Your task to perform on an android device: open sync settings in chrome Image 0: 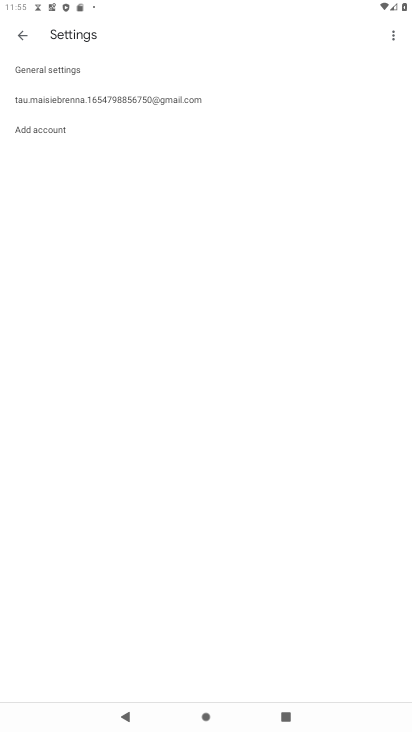
Step 0: press home button
Your task to perform on an android device: open sync settings in chrome Image 1: 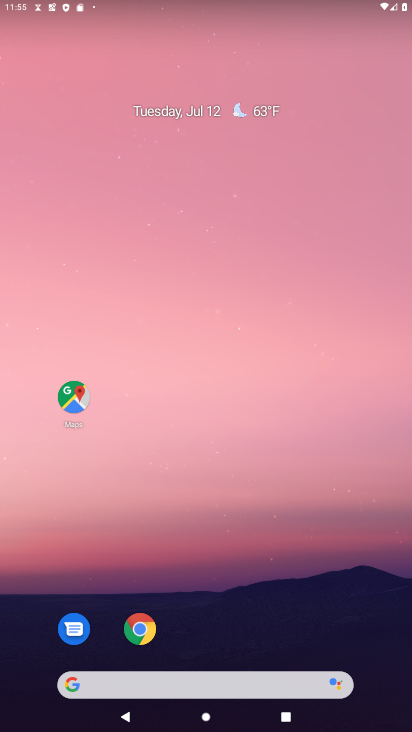
Step 1: drag from (308, 512) to (218, 10)
Your task to perform on an android device: open sync settings in chrome Image 2: 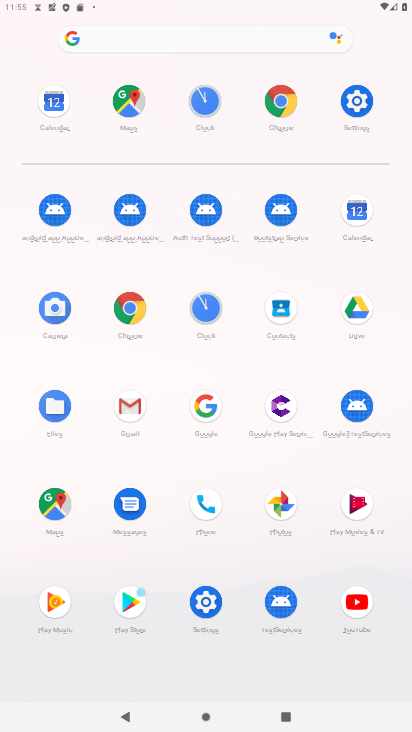
Step 2: click (280, 105)
Your task to perform on an android device: open sync settings in chrome Image 3: 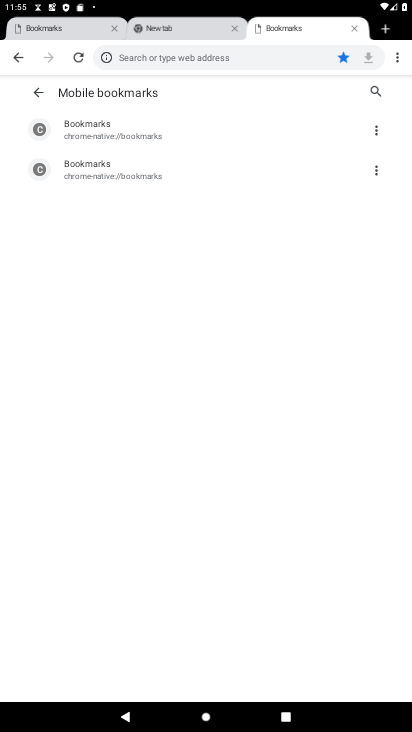
Step 3: click (396, 50)
Your task to perform on an android device: open sync settings in chrome Image 4: 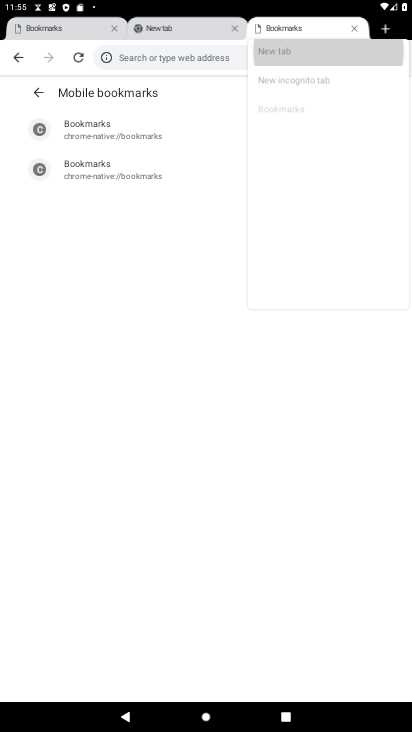
Step 4: drag from (396, 49) to (314, 270)
Your task to perform on an android device: open sync settings in chrome Image 5: 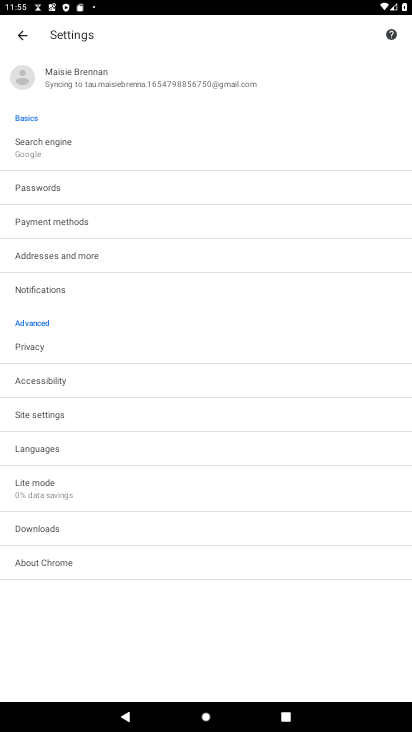
Step 5: click (97, 416)
Your task to perform on an android device: open sync settings in chrome Image 6: 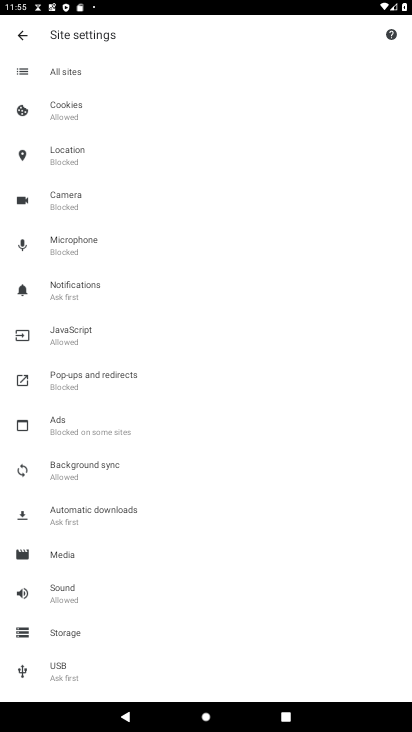
Step 6: click (112, 469)
Your task to perform on an android device: open sync settings in chrome Image 7: 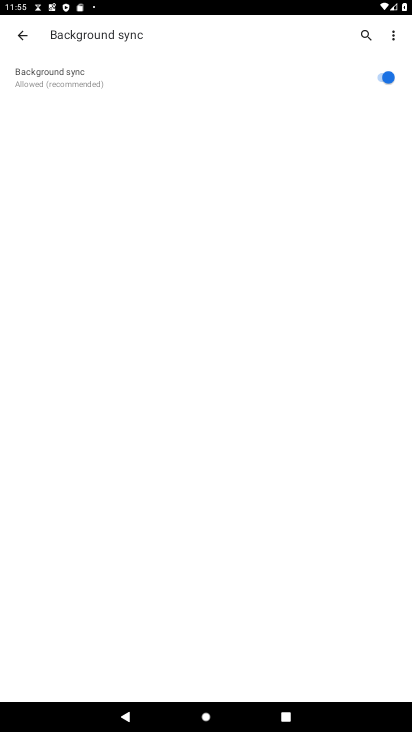
Step 7: task complete